Your task to perform on an android device: check out phone information Image 0: 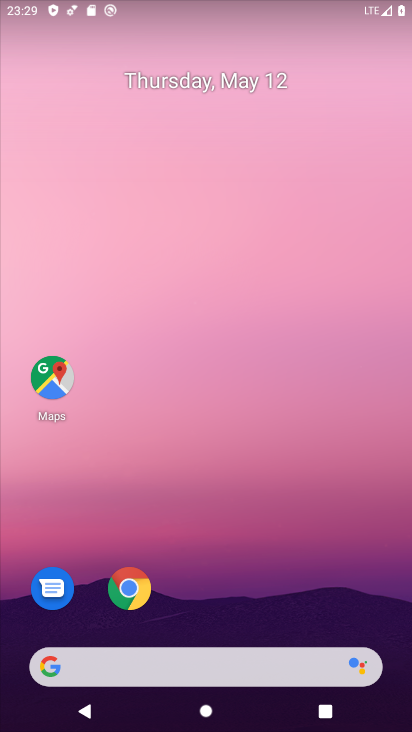
Step 0: drag from (188, 622) to (205, 269)
Your task to perform on an android device: check out phone information Image 1: 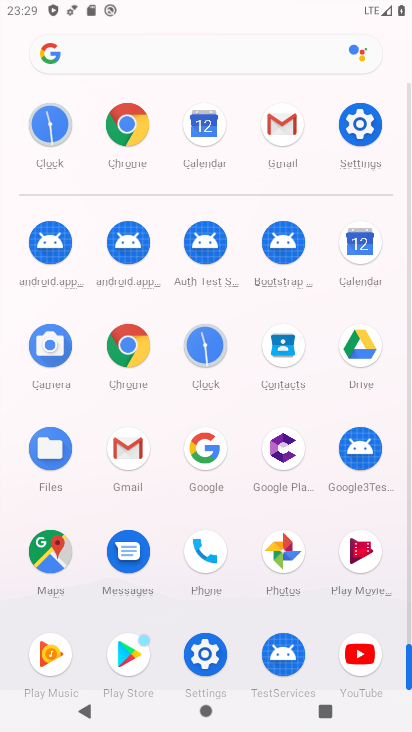
Step 1: click (357, 116)
Your task to perform on an android device: check out phone information Image 2: 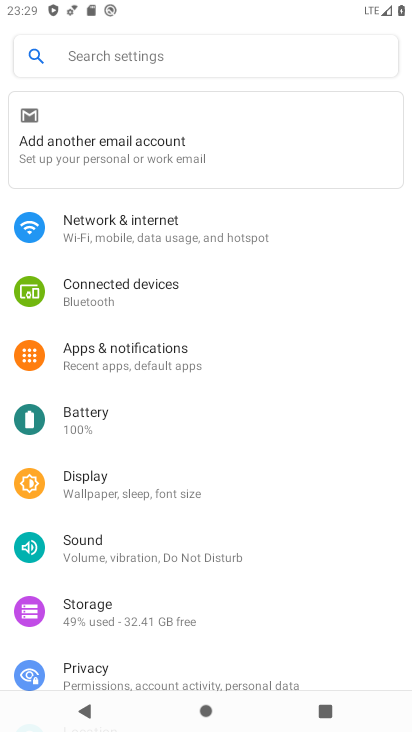
Step 2: drag from (168, 637) to (228, 15)
Your task to perform on an android device: check out phone information Image 3: 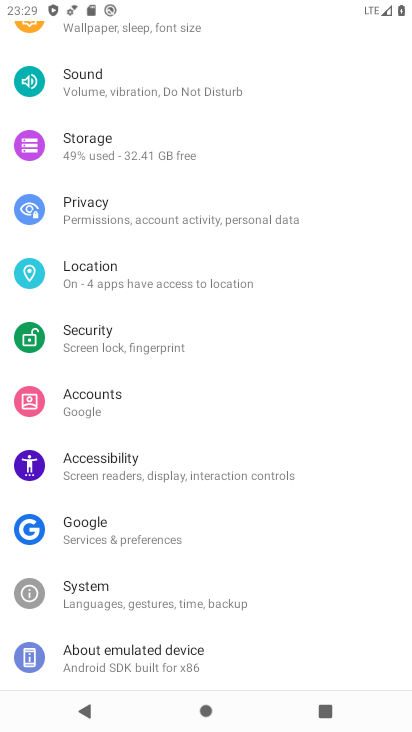
Step 3: click (112, 650)
Your task to perform on an android device: check out phone information Image 4: 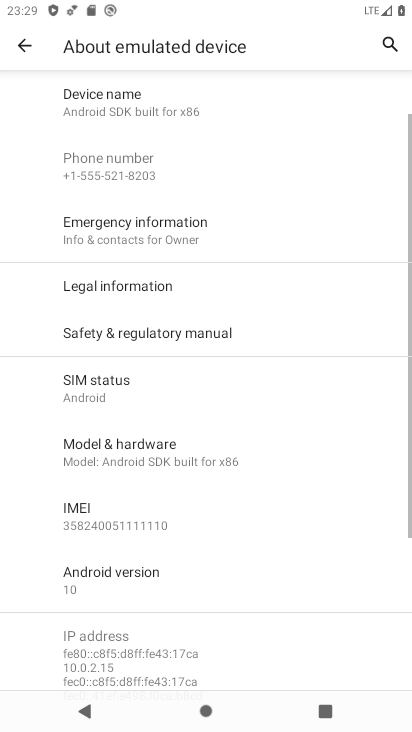
Step 4: task complete